Your task to perform on an android device: open the mobile data screen to see how much data has been used Image 0: 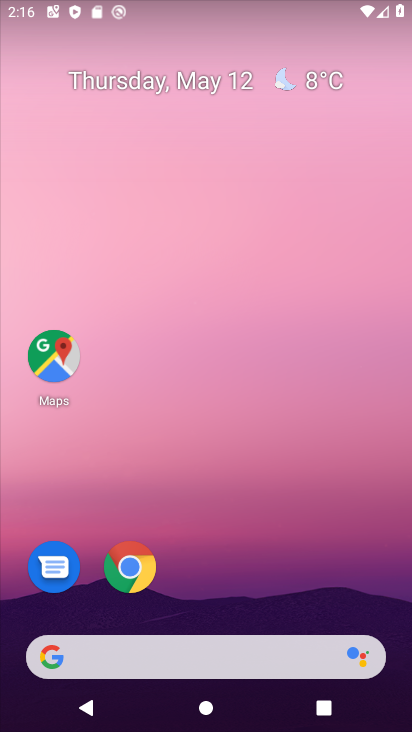
Step 0: drag from (230, 592) to (261, 148)
Your task to perform on an android device: open the mobile data screen to see how much data has been used Image 1: 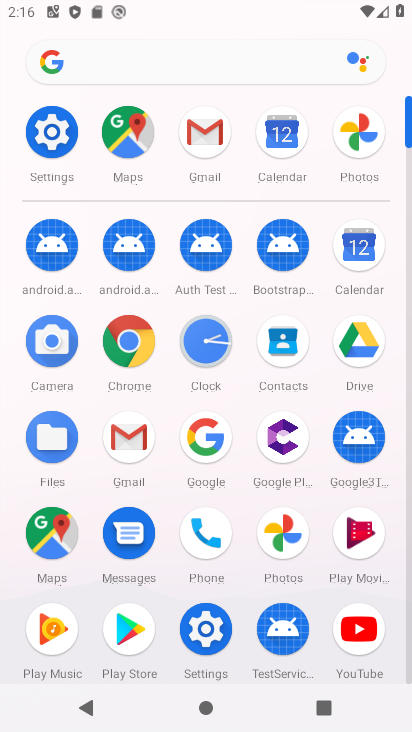
Step 1: click (63, 133)
Your task to perform on an android device: open the mobile data screen to see how much data has been used Image 2: 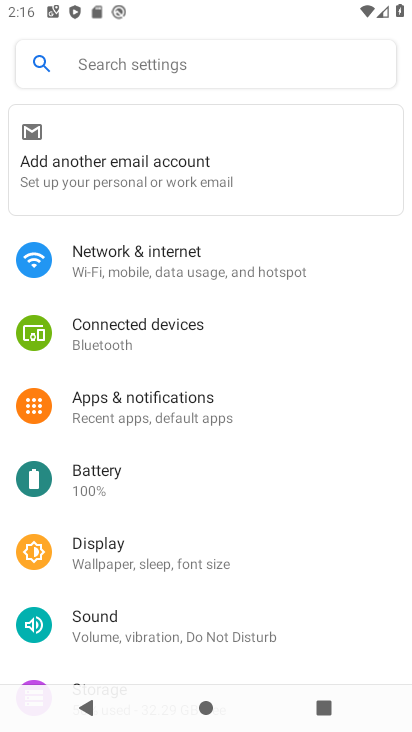
Step 2: click (132, 264)
Your task to perform on an android device: open the mobile data screen to see how much data has been used Image 3: 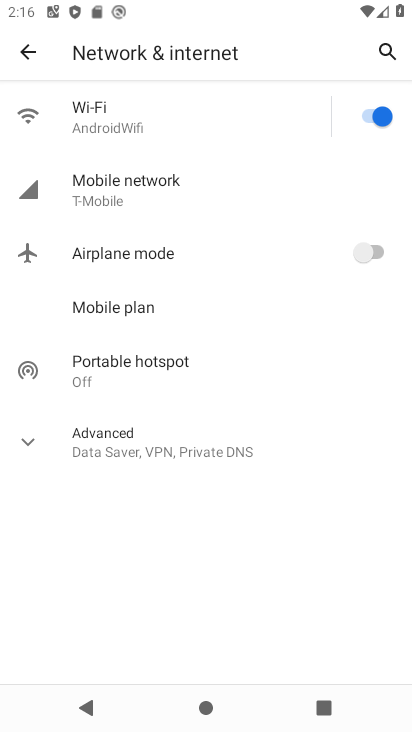
Step 3: click (116, 200)
Your task to perform on an android device: open the mobile data screen to see how much data has been used Image 4: 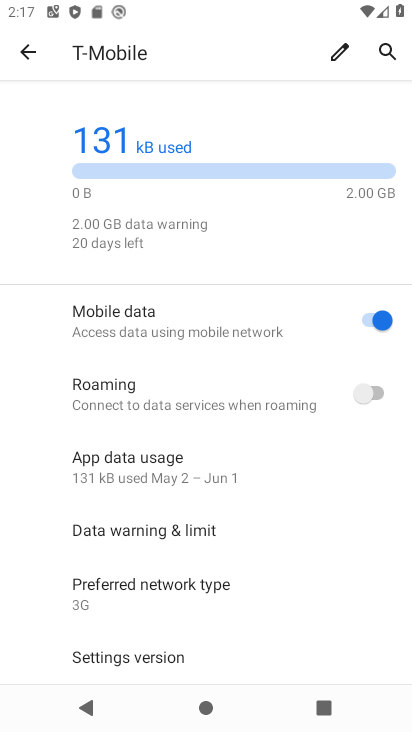
Step 4: click (163, 466)
Your task to perform on an android device: open the mobile data screen to see how much data has been used Image 5: 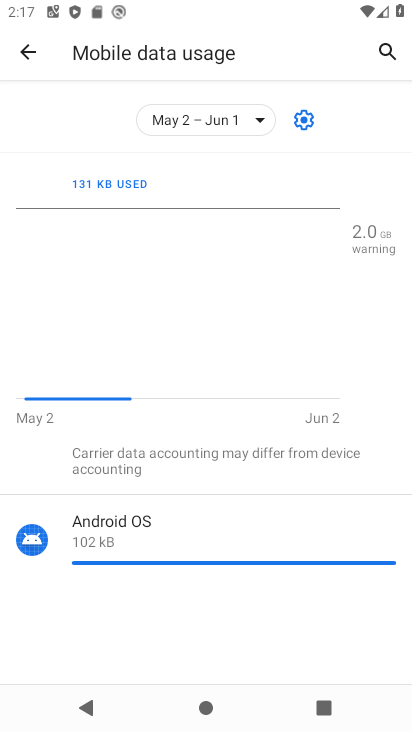
Step 5: task complete